Your task to perform on an android device: open app "LiveIn - Share Your Moment" (install if not already installed), go to login, and select forgot password Image 0: 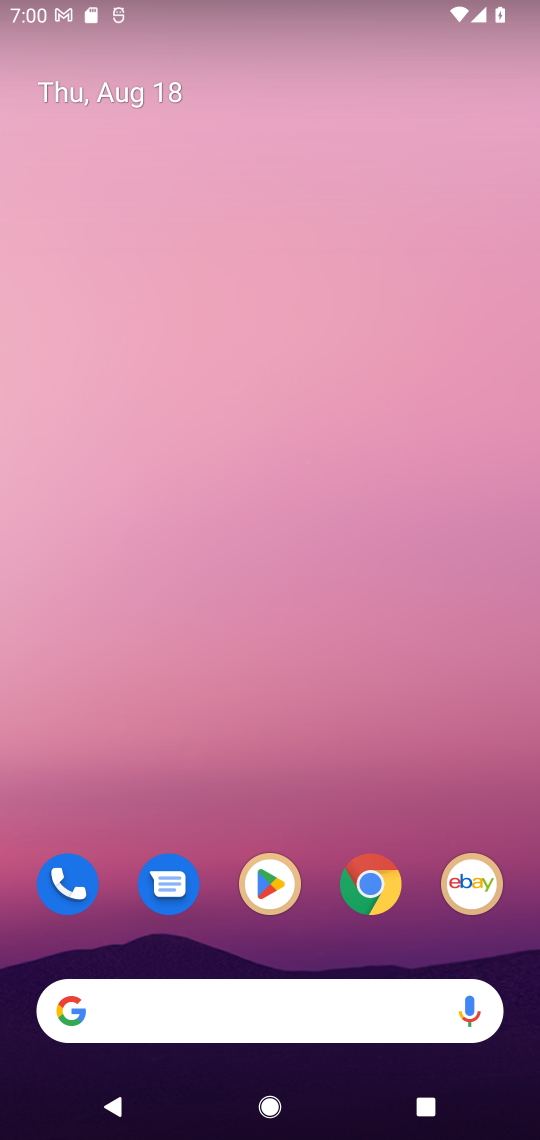
Step 0: drag from (275, 1017) to (375, 117)
Your task to perform on an android device: open app "LiveIn - Share Your Moment" (install if not already installed), go to login, and select forgot password Image 1: 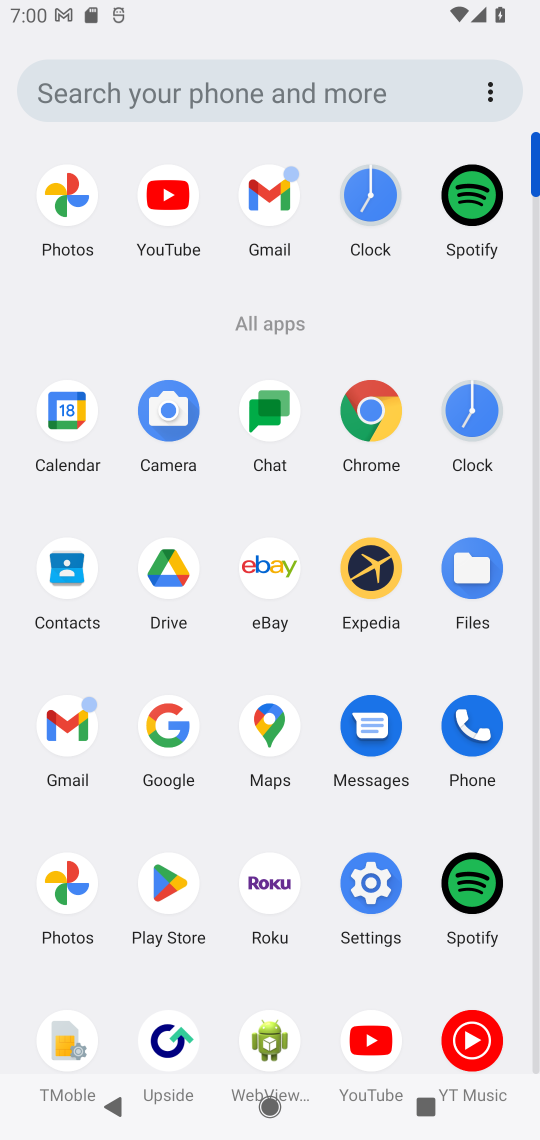
Step 1: click (173, 884)
Your task to perform on an android device: open app "LiveIn - Share Your Moment" (install if not already installed), go to login, and select forgot password Image 2: 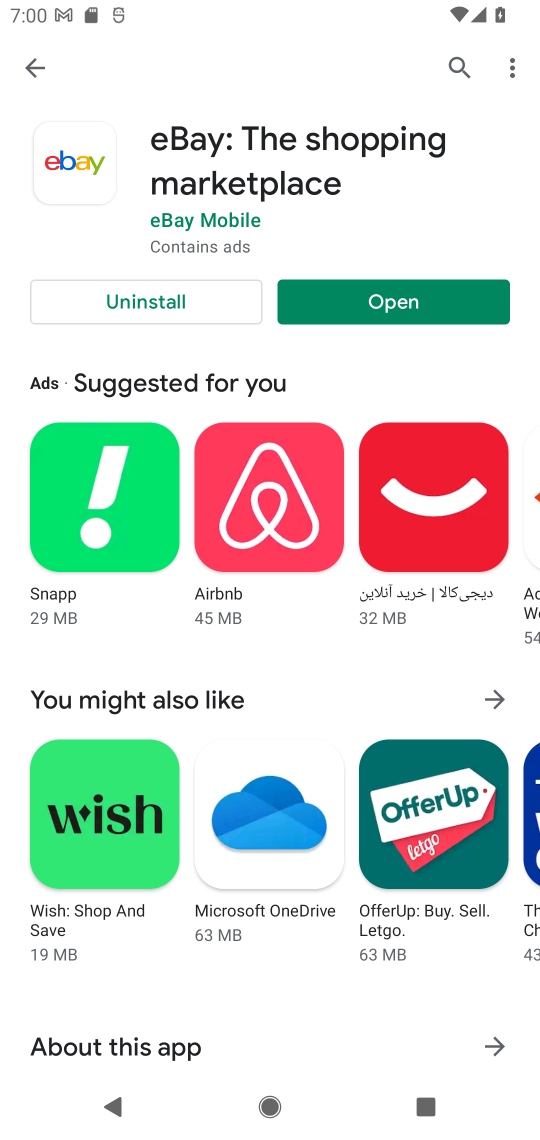
Step 2: press back button
Your task to perform on an android device: open app "LiveIn - Share Your Moment" (install if not already installed), go to login, and select forgot password Image 3: 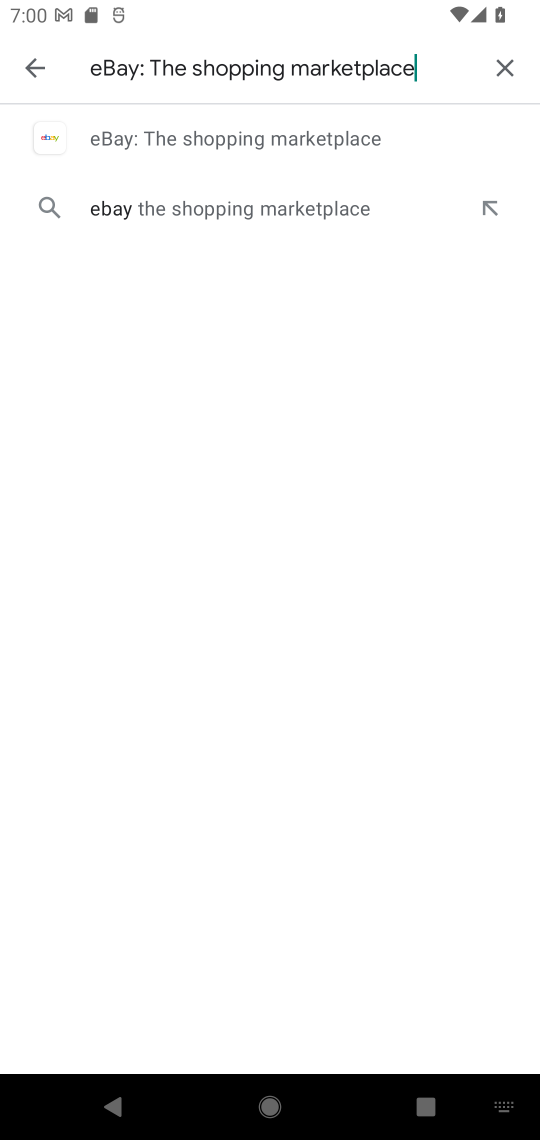
Step 3: press back button
Your task to perform on an android device: open app "LiveIn - Share Your Moment" (install if not already installed), go to login, and select forgot password Image 4: 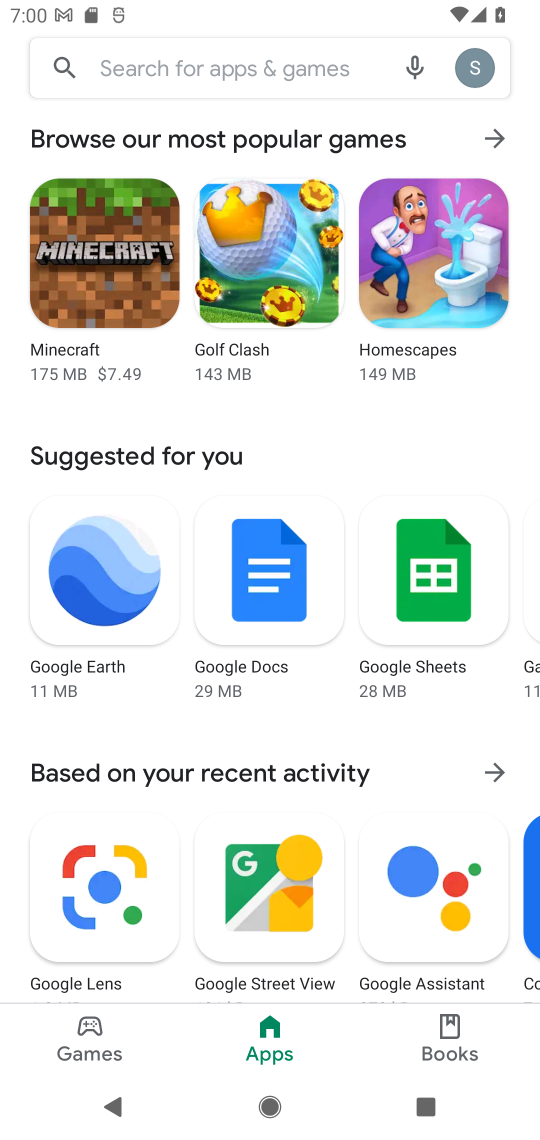
Step 4: click (294, 70)
Your task to perform on an android device: open app "LiveIn - Share Your Moment" (install if not already installed), go to login, and select forgot password Image 5: 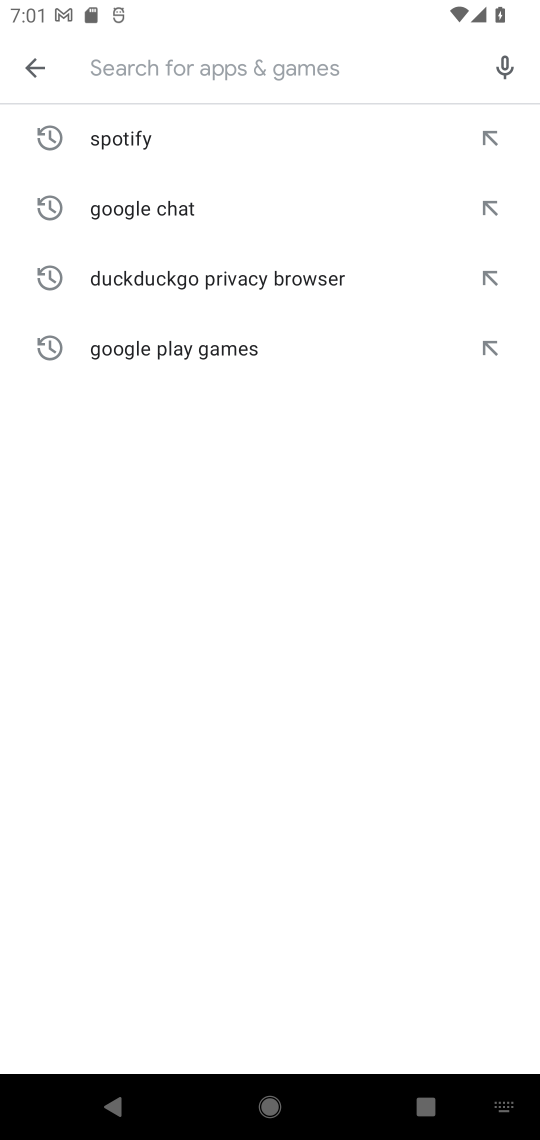
Step 5: type "LiveIn - Share Your Moment"
Your task to perform on an android device: open app "LiveIn - Share Your Moment" (install if not already installed), go to login, and select forgot password Image 6: 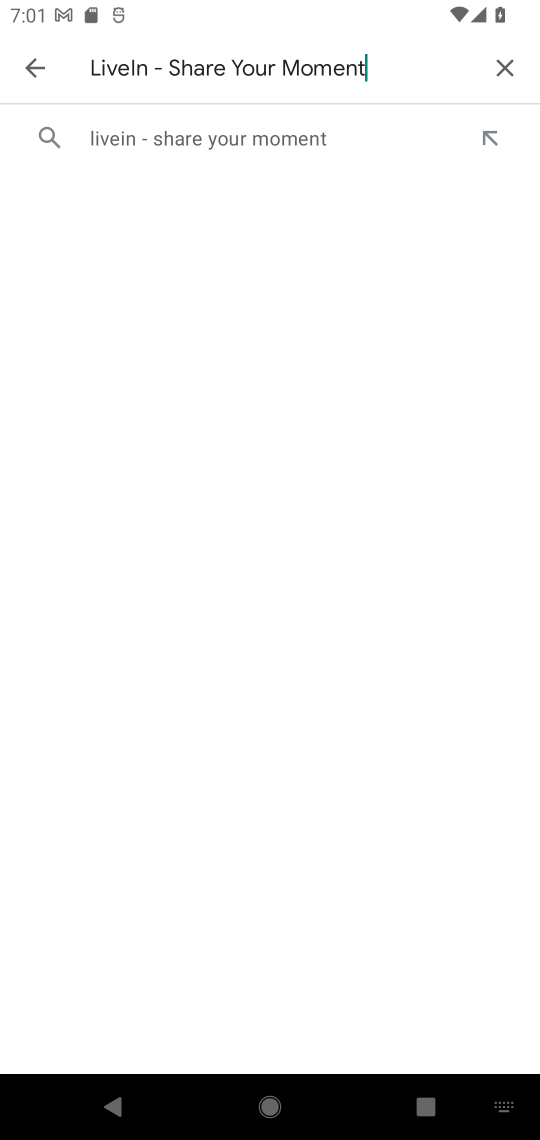
Step 6: click (265, 139)
Your task to perform on an android device: open app "LiveIn - Share Your Moment" (install if not already installed), go to login, and select forgot password Image 7: 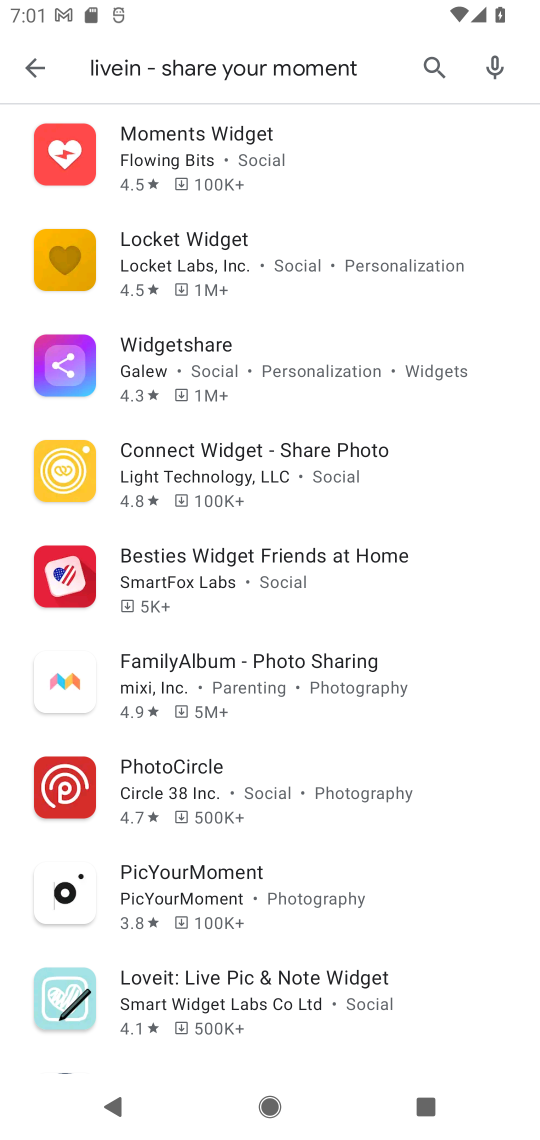
Step 7: task complete